Your task to perform on an android device: add a contact Image 0: 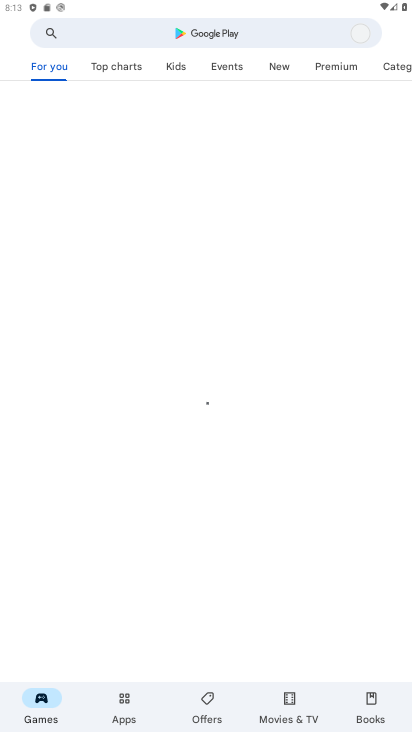
Step 0: press home button
Your task to perform on an android device: add a contact Image 1: 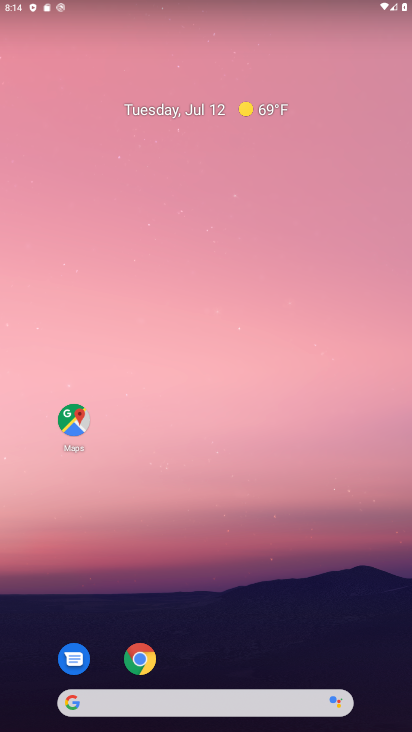
Step 1: drag from (255, 631) to (173, 181)
Your task to perform on an android device: add a contact Image 2: 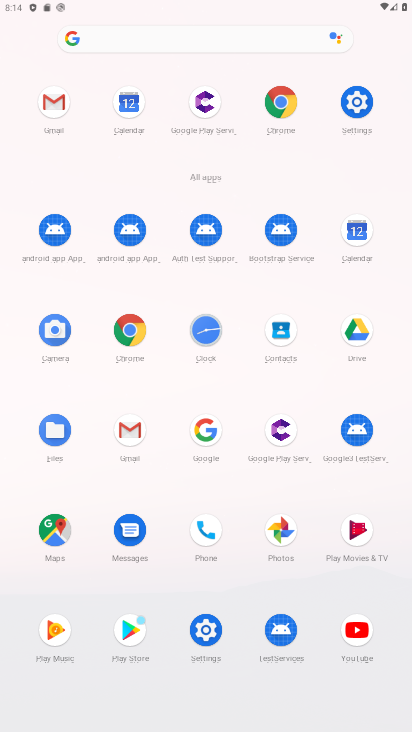
Step 2: click (275, 340)
Your task to perform on an android device: add a contact Image 3: 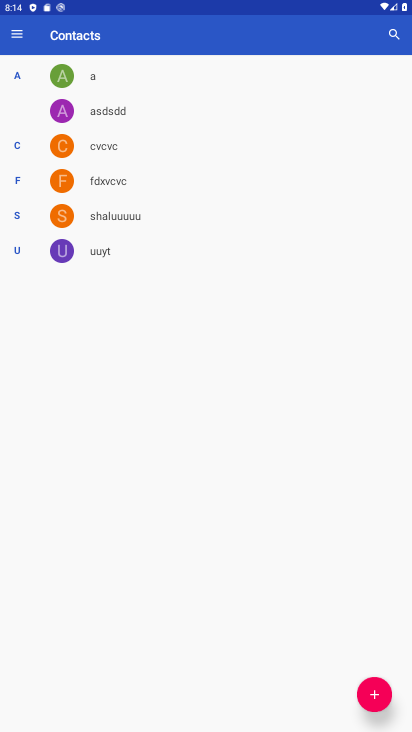
Step 3: click (364, 688)
Your task to perform on an android device: add a contact Image 4: 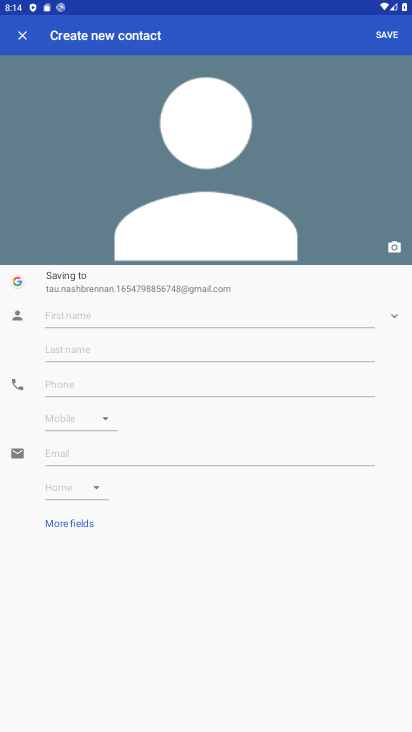
Step 4: click (143, 321)
Your task to perform on an android device: add a contact Image 5: 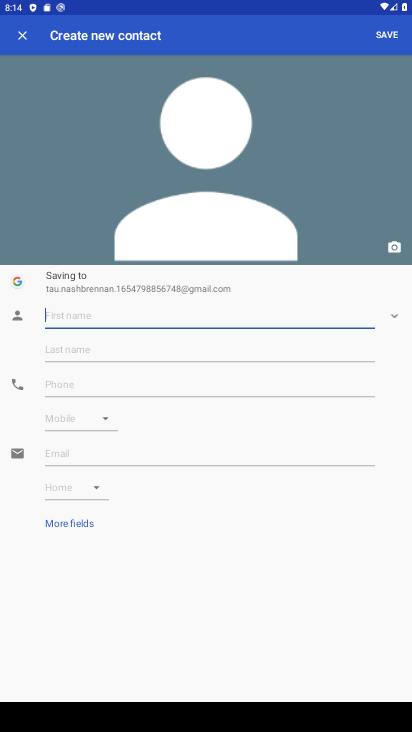
Step 5: type "bhjbjh"
Your task to perform on an android device: add a contact Image 6: 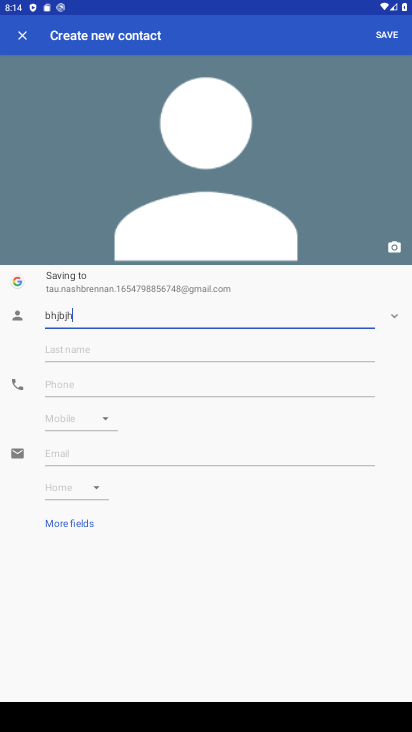
Step 6: click (176, 383)
Your task to perform on an android device: add a contact Image 7: 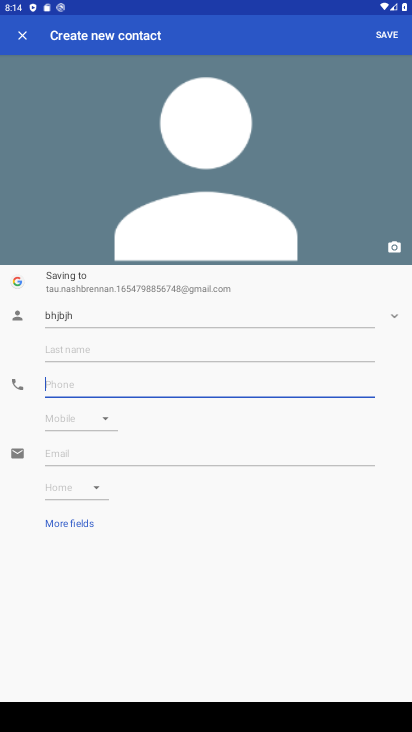
Step 7: type "779889789"
Your task to perform on an android device: add a contact Image 8: 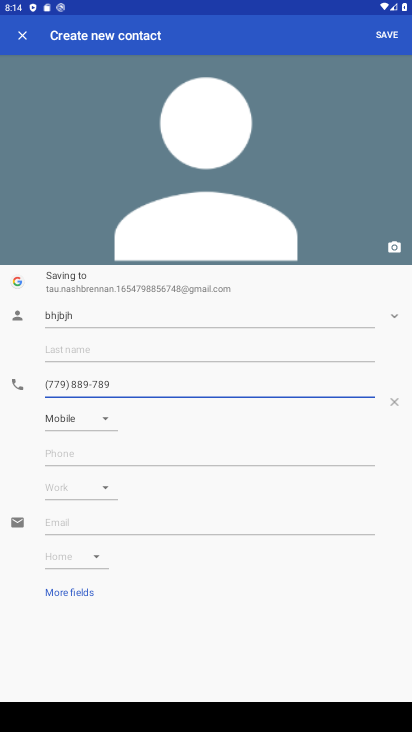
Step 8: click (382, 37)
Your task to perform on an android device: add a contact Image 9: 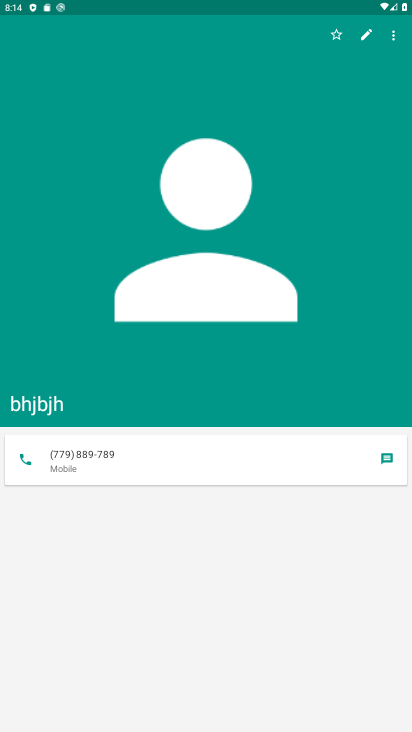
Step 9: task complete